Your task to perform on an android device: Go to Google maps Image 0: 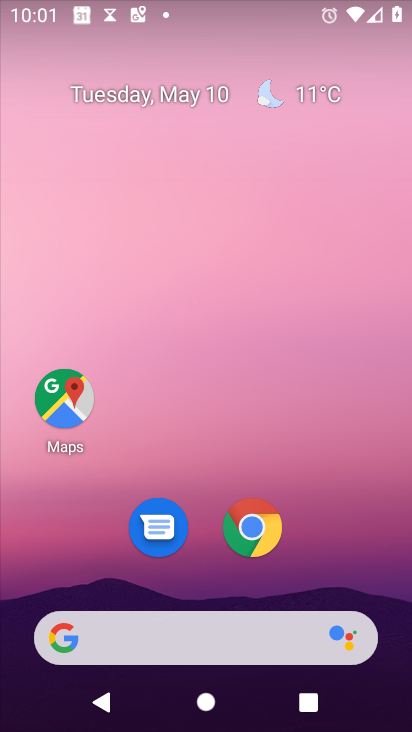
Step 0: click (46, 395)
Your task to perform on an android device: Go to Google maps Image 1: 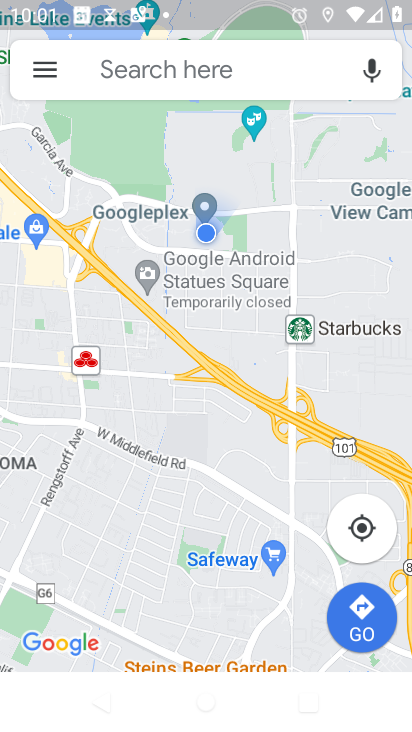
Step 1: task complete